Your task to perform on an android device: toggle location history Image 0: 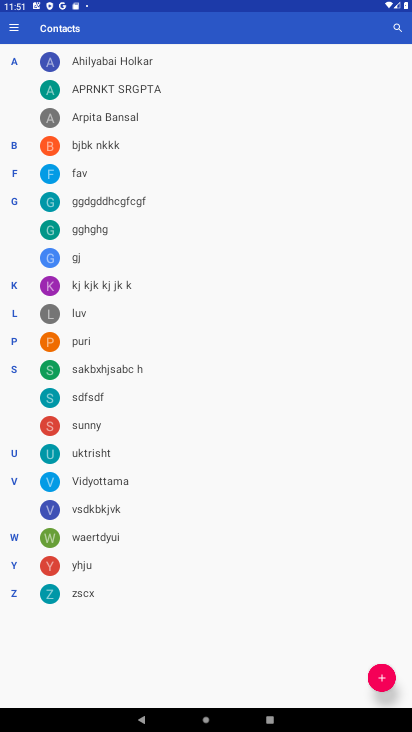
Step 0: press home button
Your task to perform on an android device: toggle location history Image 1: 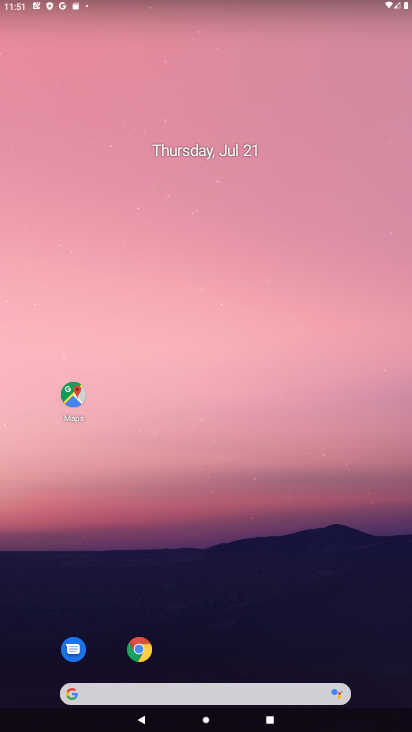
Step 1: drag from (232, 725) to (233, 143)
Your task to perform on an android device: toggle location history Image 2: 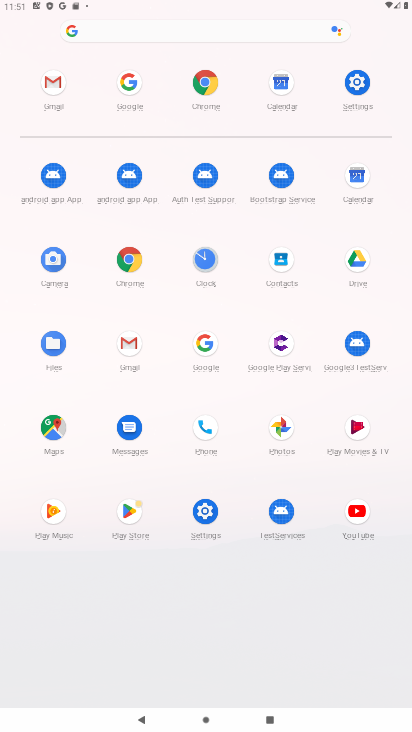
Step 2: click (360, 81)
Your task to perform on an android device: toggle location history Image 3: 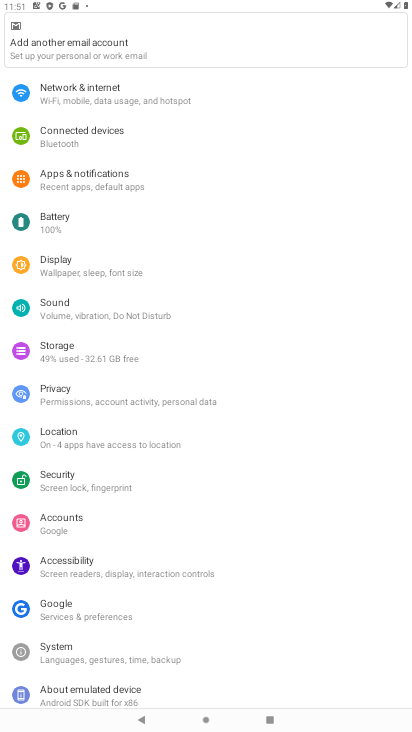
Step 3: click (73, 439)
Your task to perform on an android device: toggle location history Image 4: 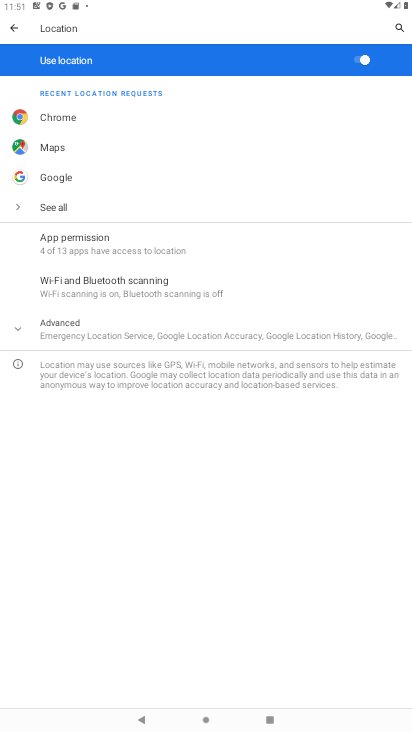
Step 4: click (75, 329)
Your task to perform on an android device: toggle location history Image 5: 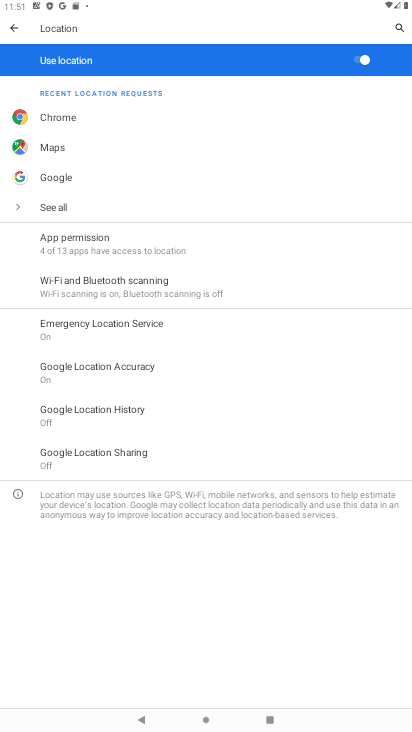
Step 5: click (101, 409)
Your task to perform on an android device: toggle location history Image 6: 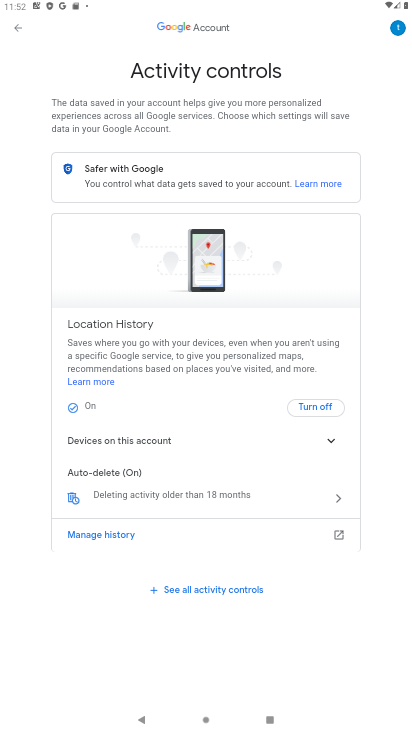
Step 6: click (316, 406)
Your task to perform on an android device: toggle location history Image 7: 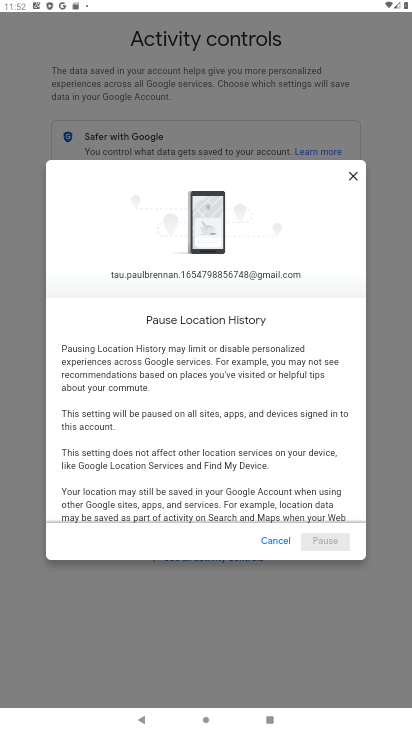
Step 7: drag from (256, 482) to (239, 308)
Your task to perform on an android device: toggle location history Image 8: 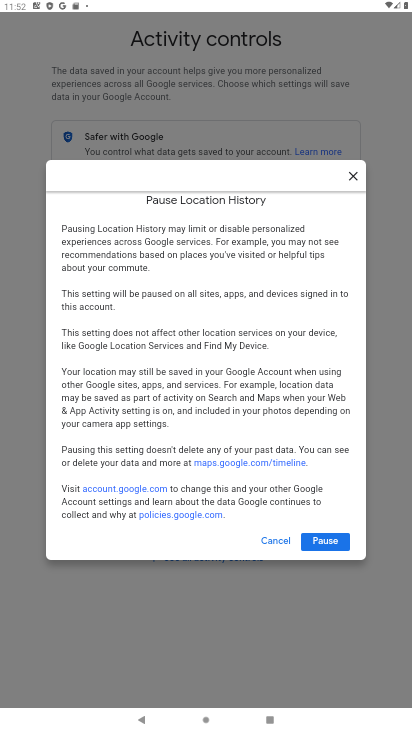
Step 8: click (336, 546)
Your task to perform on an android device: toggle location history Image 9: 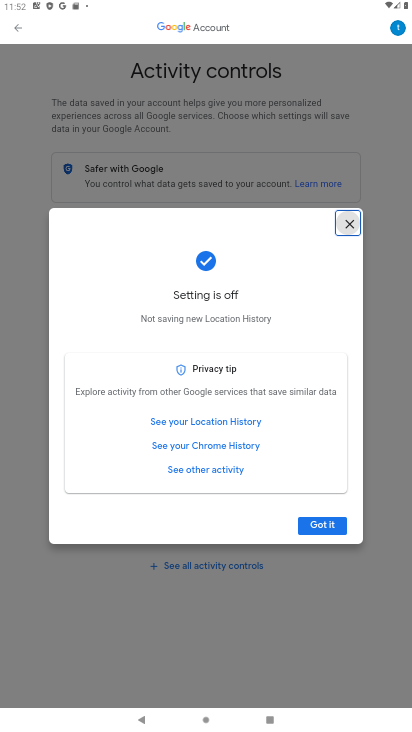
Step 9: click (322, 525)
Your task to perform on an android device: toggle location history Image 10: 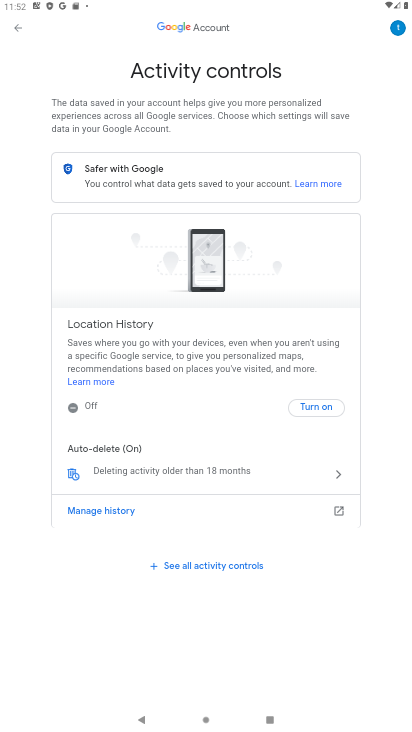
Step 10: task complete